Your task to perform on an android device: Open CNN.com Image 0: 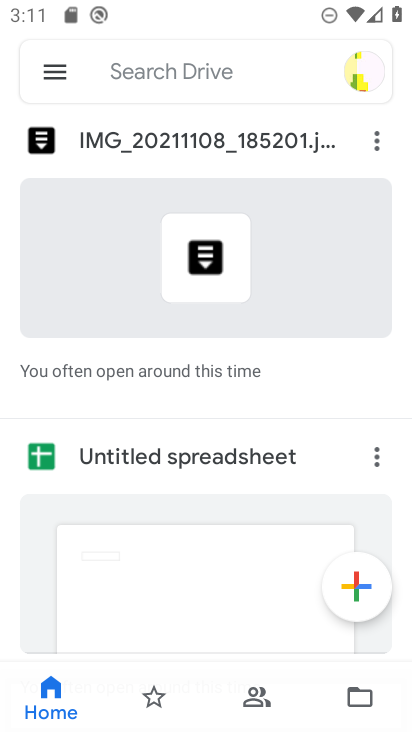
Step 0: press home button
Your task to perform on an android device: Open CNN.com Image 1: 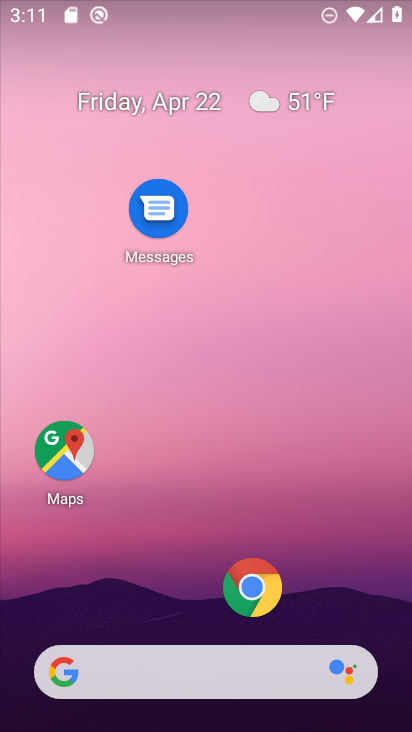
Step 1: click (171, 660)
Your task to perform on an android device: Open CNN.com Image 2: 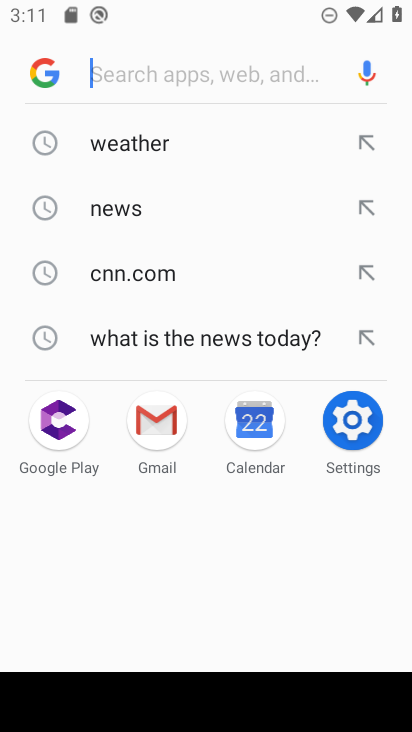
Step 2: click (113, 270)
Your task to perform on an android device: Open CNN.com Image 3: 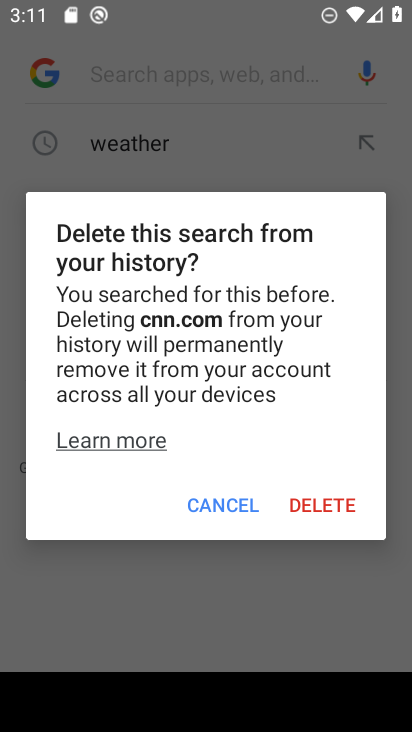
Step 3: click (242, 497)
Your task to perform on an android device: Open CNN.com Image 4: 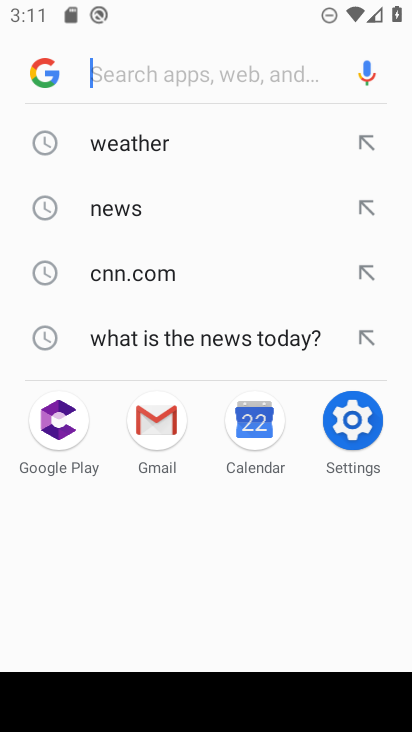
Step 4: click (180, 265)
Your task to perform on an android device: Open CNN.com Image 5: 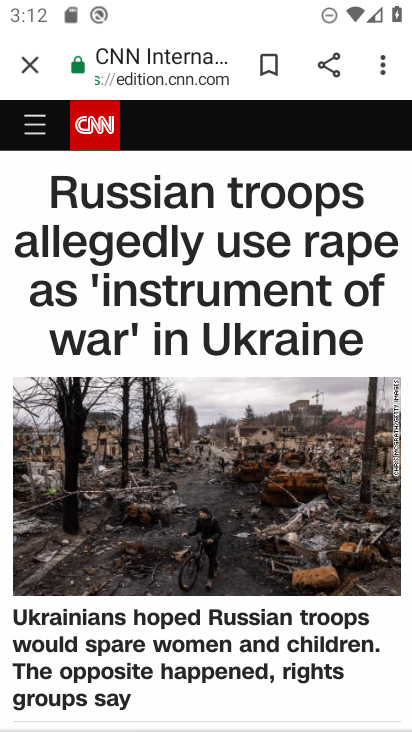
Step 5: task complete